Your task to perform on an android device: Go to display settings Image 0: 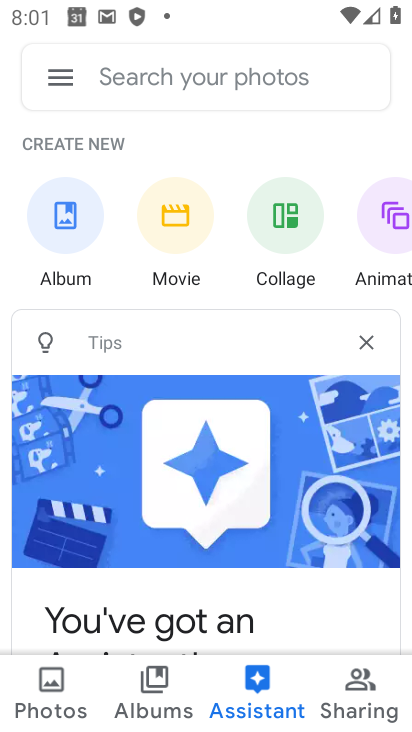
Step 0: press home button
Your task to perform on an android device: Go to display settings Image 1: 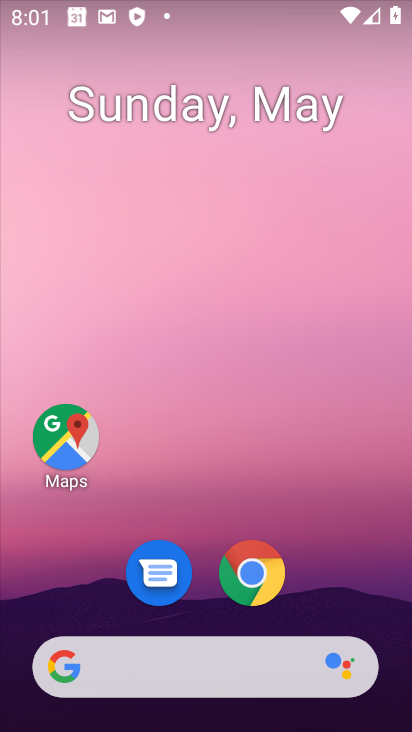
Step 1: drag from (216, 475) to (230, 4)
Your task to perform on an android device: Go to display settings Image 2: 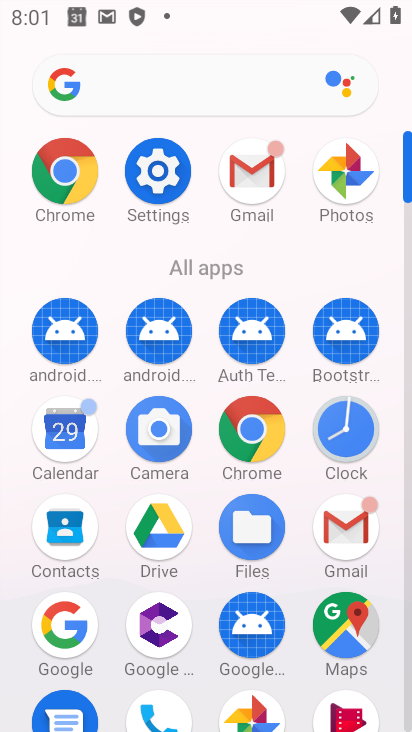
Step 2: click (159, 151)
Your task to perform on an android device: Go to display settings Image 3: 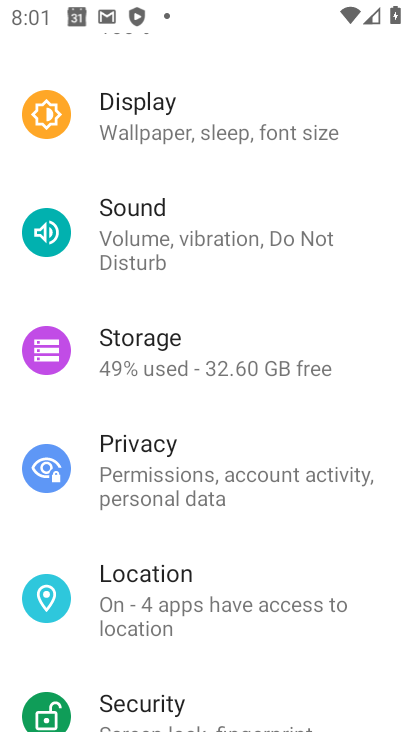
Step 3: click (215, 119)
Your task to perform on an android device: Go to display settings Image 4: 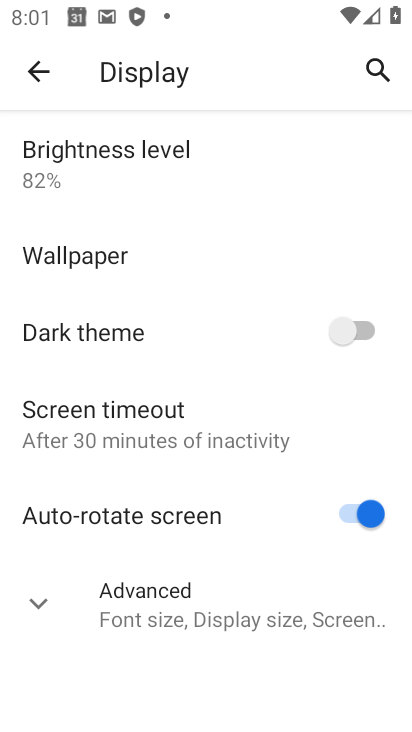
Step 4: task complete